Your task to perform on an android device: Open Yahoo.com Image 0: 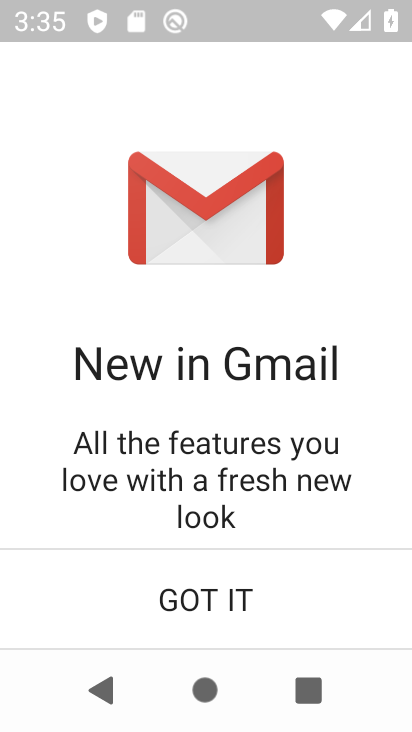
Step 0: press home button
Your task to perform on an android device: Open Yahoo.com Image 1: 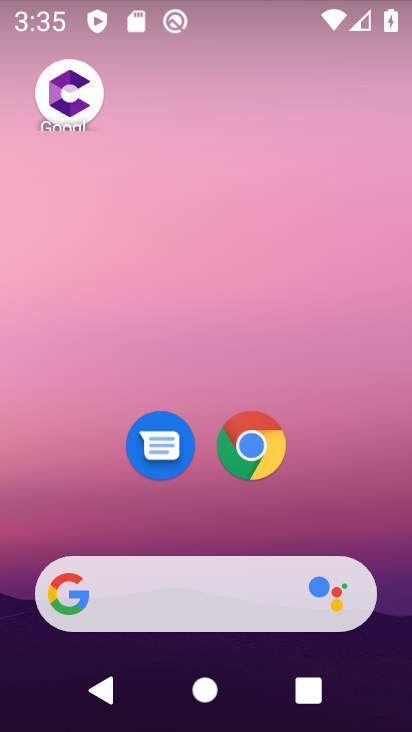
Step 1: click (269, 447)
Your task to perform on an android device: Open Yahoo.com Image 2: 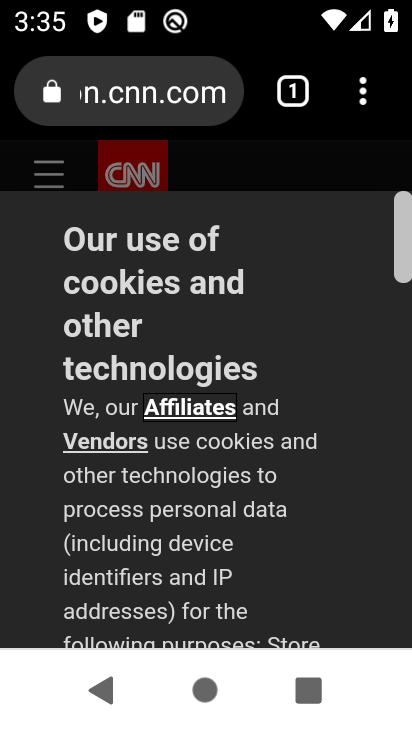
Step 2: click (286, 93)
Your task to perform on an android device: Open Yahoo.com Image 3: 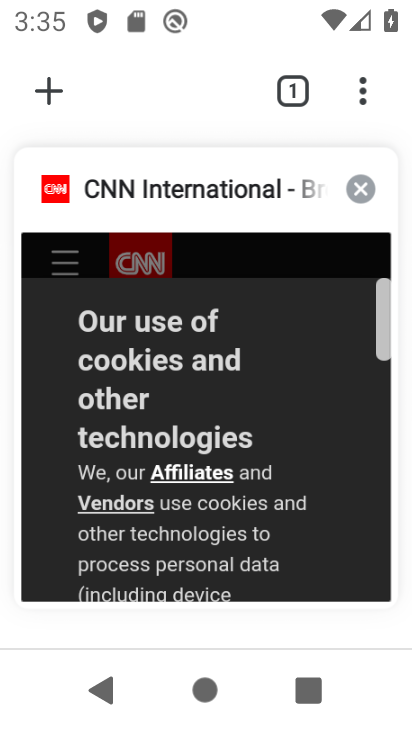
Step 3: click (364, 184)
Your task to perform on an android device: Open Yahoo.com Image 4: 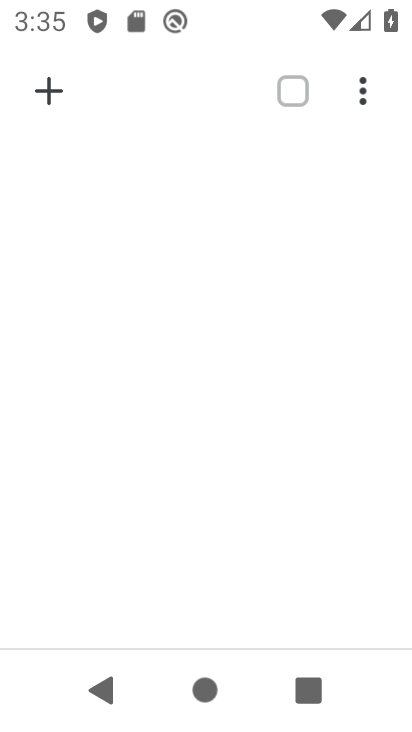
Step 4: click (56, 90)
Your task to perform on an android device: Open Yahoo.com Image 5: 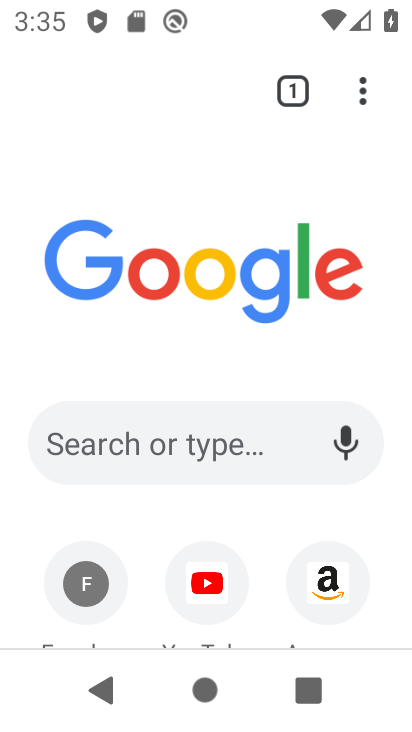
Step 5: drag from (252, 513) to (251, 259)
Your task to perform on an android device: Open Yahoo.com Image 6: 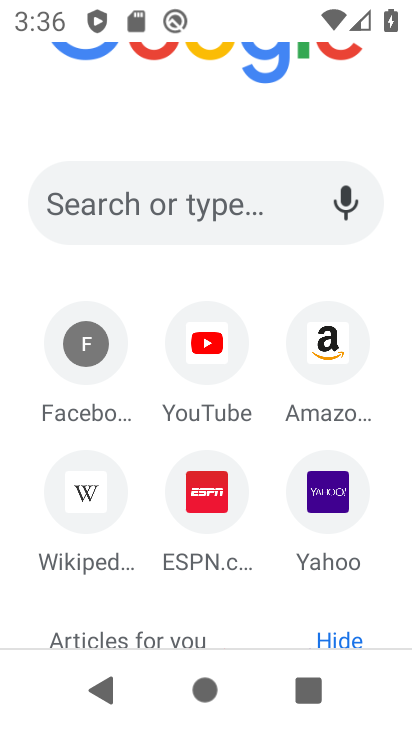
Step 6: click (337, 513)
Your task to perform on an android device: Open Yahoo.com Image 7: 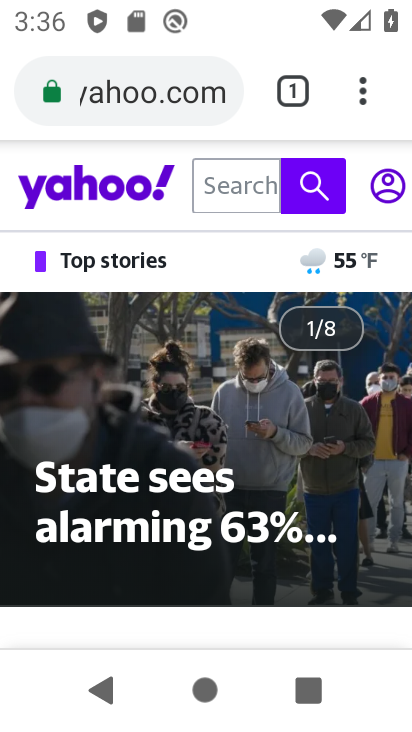
Step 7: task complete